Your task to perform on an android device: turn smart compose on in the gmail app Image 0: 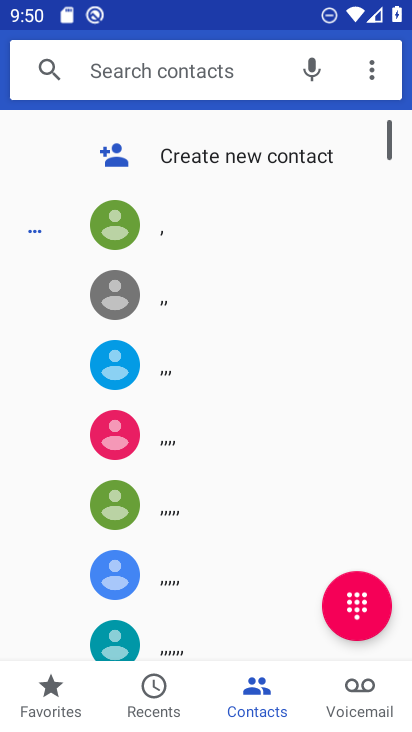
Step 0: press home button
Your task to perform on an android device: turn smart compose on in the gmail app Image 1: 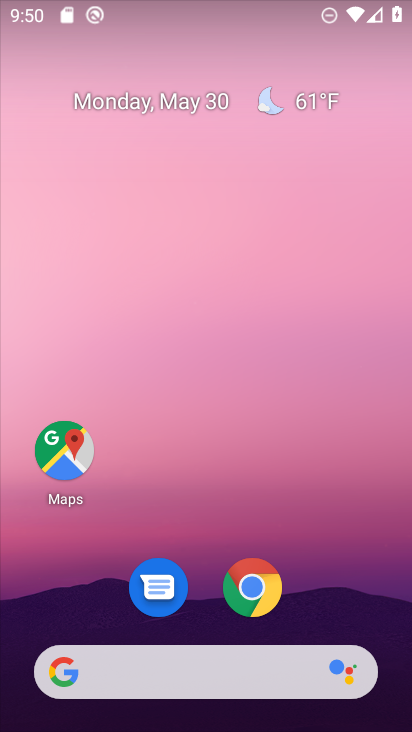
Step 1: drag from (223, 654) to (365, 124)
Your task to perform on an android device: turn smart compose on in the gmail app Image 2: 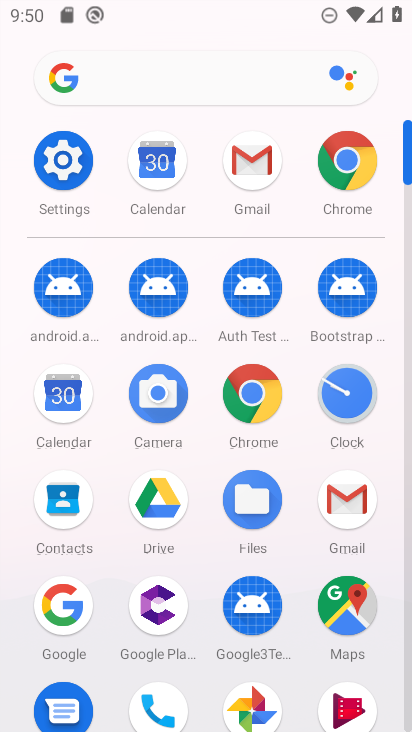
Step 2: click (338, 497)
Your task to perform on an android device: turn smart compose on in the gmail app Image 3: 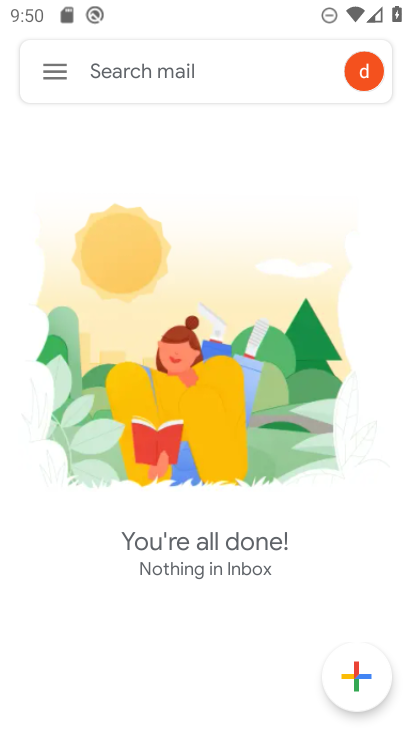
Step 3: click (62, 70)
Your task to perform on an android device: turn smart compose on in the gmail app Image 4: 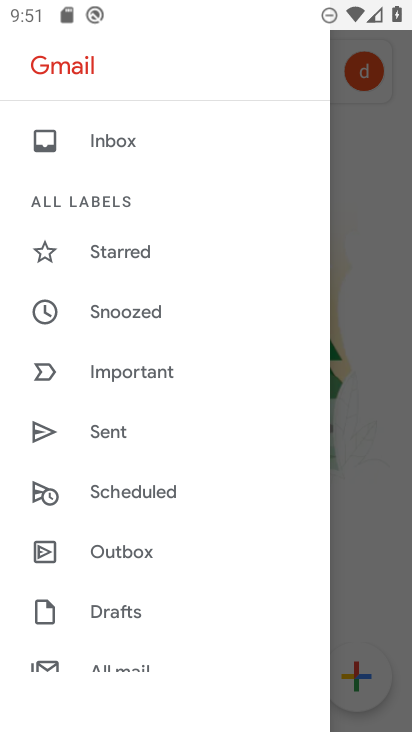
Step 4: drag from (131, 523) to (85, 15)
Your task to perform on an android device: turn smart compose on in the gmail app Image 5: 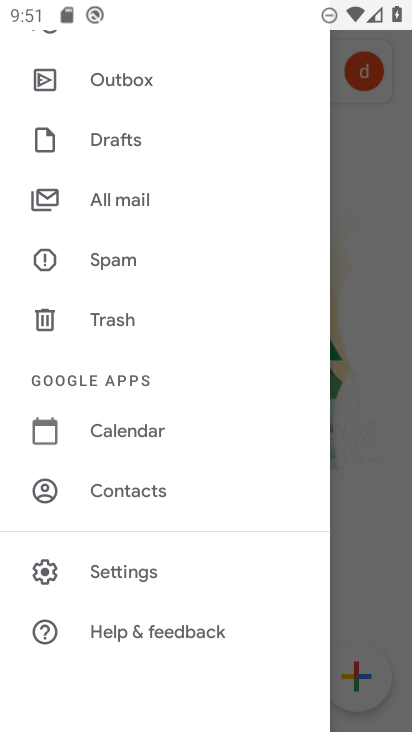
Step 5: click (95, 549)
Your task to perform on an android device: turn smart compose on in the gmail app Image 6: 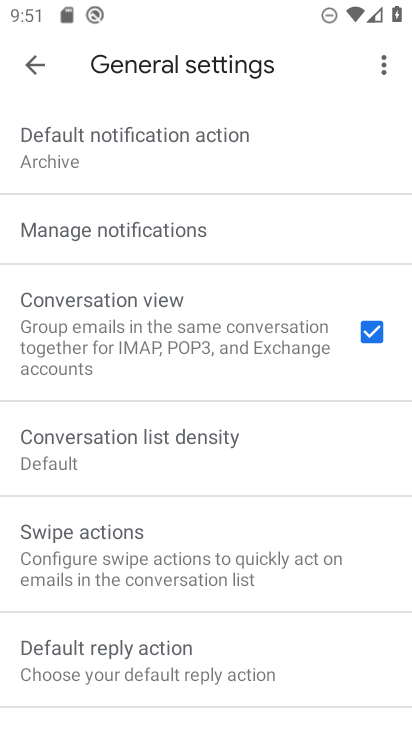
Step 6: drag from (199, 592) to (126, 137)
Your task to perform on an android device: turn smart compose on in the gmail app Image 7: 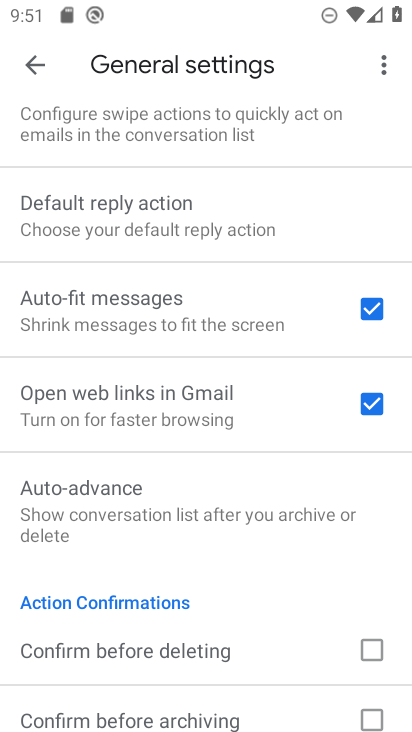
Step 7: click (28, 49)
Your task to perform on an android device: turn smart compose on in the gmail app Image 8: 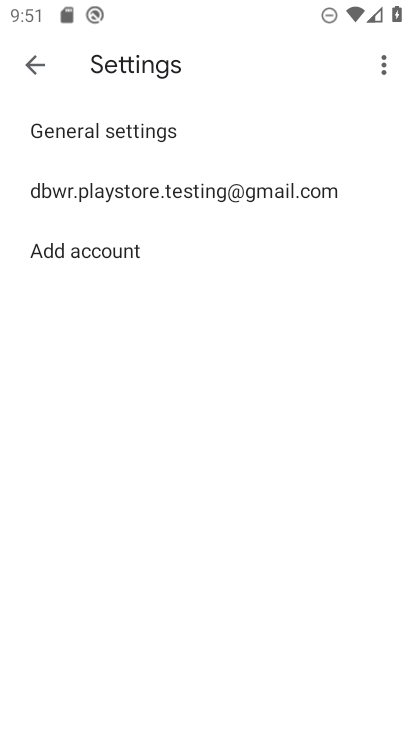
Step 8: click (104, 190)
Your task to perform on an android device: turn smart compose on in the gmail app Image 9: 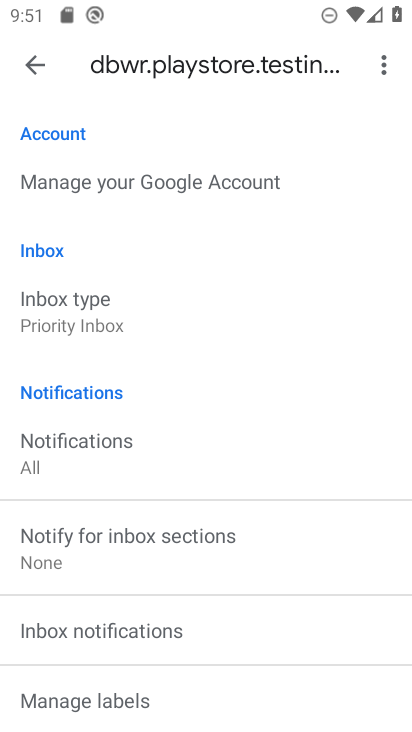
Step 9: task complete